Your task to perform on an android device: Open Youtube and go to the subscriptions tab Image 0: 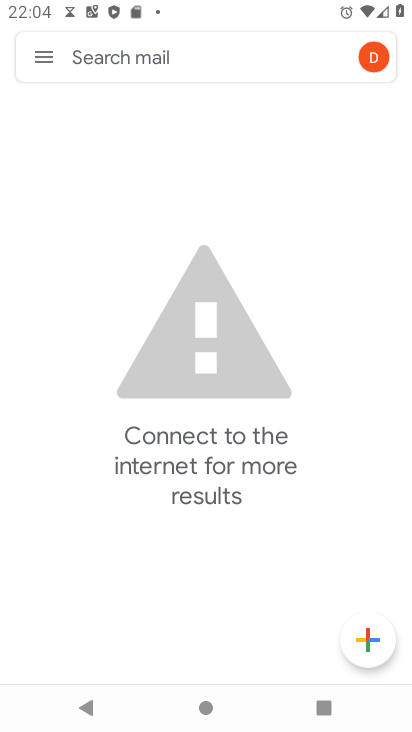
Step 0: press home button
Your task to perform on an android device: Open Youtube and go to the subscriptions tab Image 1: 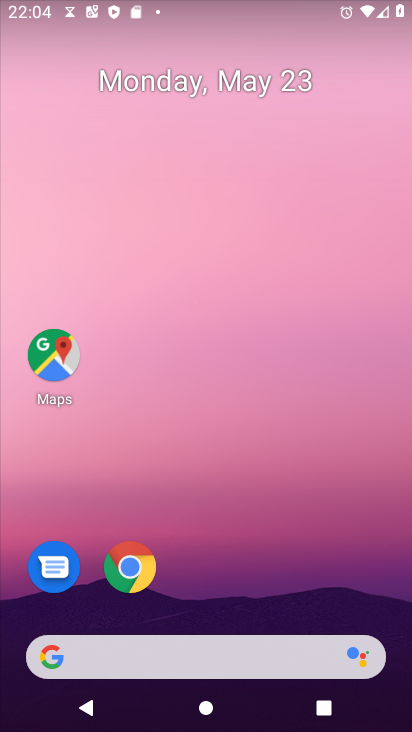
Step 1: drag from (295, 504) to (298, 126)
Your task to perform on an android device: Open Youtube and go to the subscriptions tab Image 2: 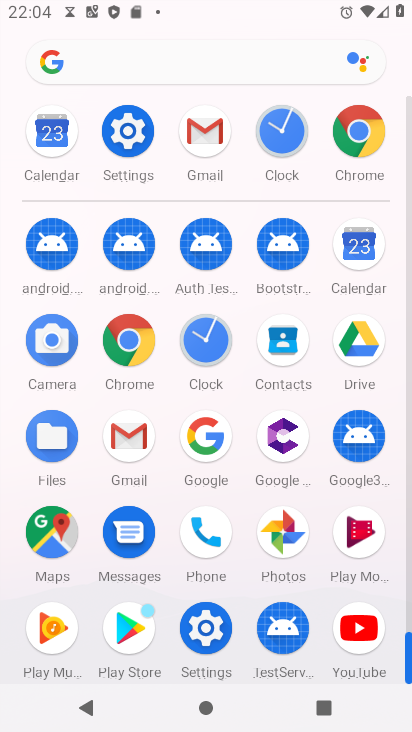
Step 2: click (351, 630)
Your task to perform on an android device: Open Youtube and go to the subscriptions tab Image 3: 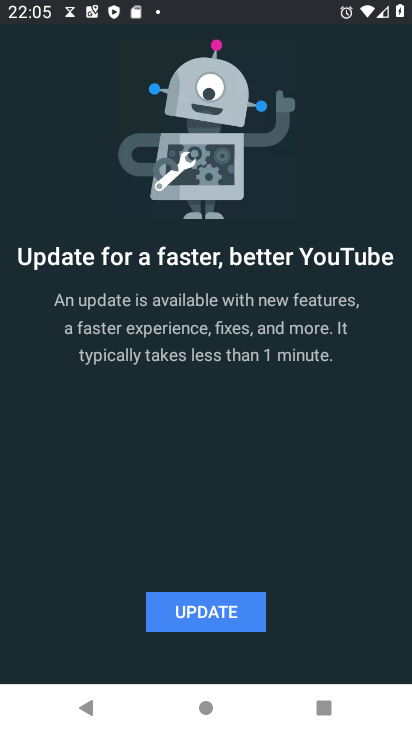
Step 3: task complete